Your task to perform on an android device: add a contact Image 0: 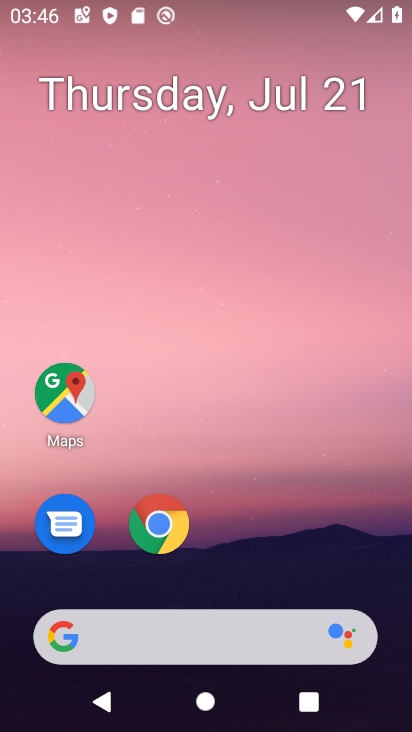
Step 0: drag from (281, 513) to (297, 19)
Your task to perform on an android device: add a contact Image 1: 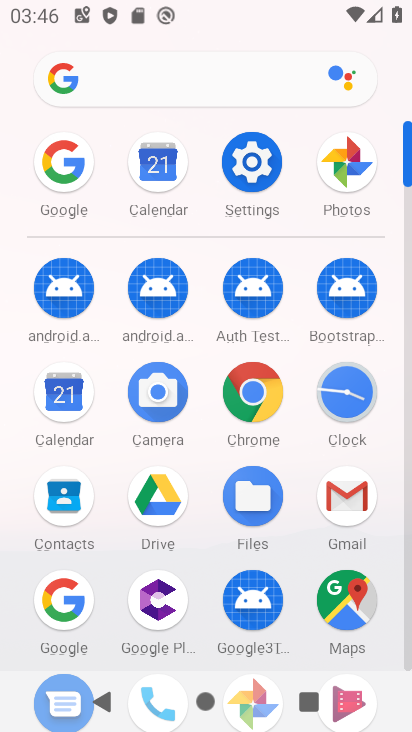
Step 1: click (70, 502)
Your task to perform on an android device: add a contact Image 2: 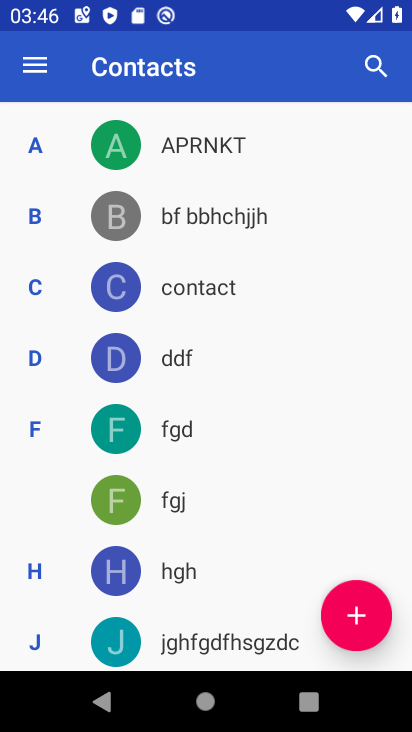
Step 2: click (353, 620)
Your task to perform on an android device: add a contact Image 3: 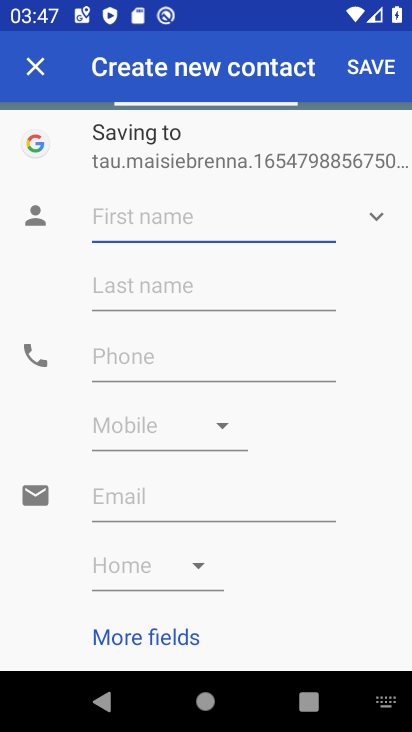
Step 3: type "Divyaprabha"
Your task to perform on an android device: add a contact Image 4: 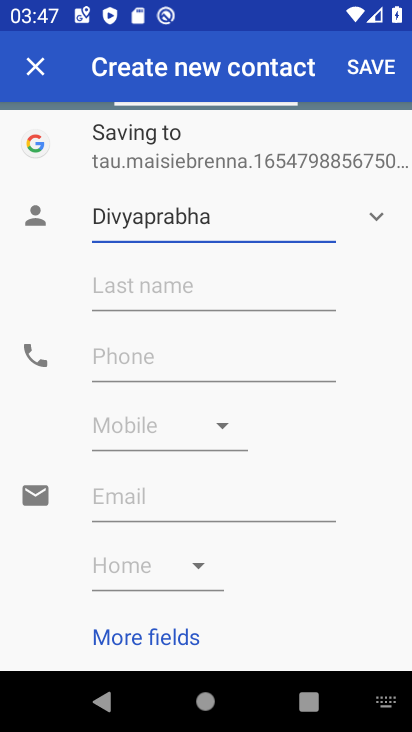
Step 4: click (214, 364)
Your task to perform on an android device: add a contact Image 5: 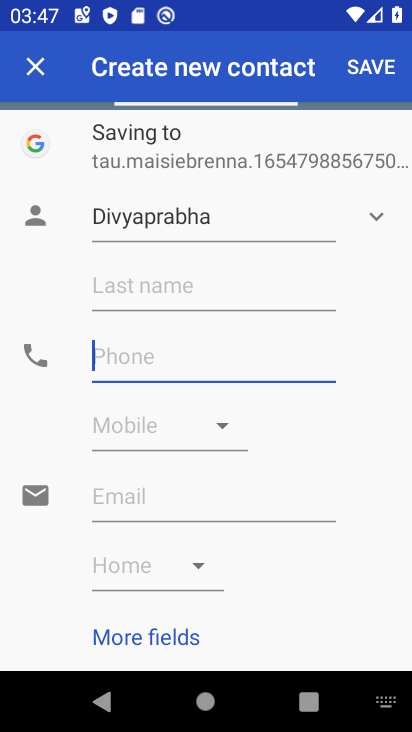
Step 5: type "9876543210"
Your task to perform on an android device: add a contact Image 6: 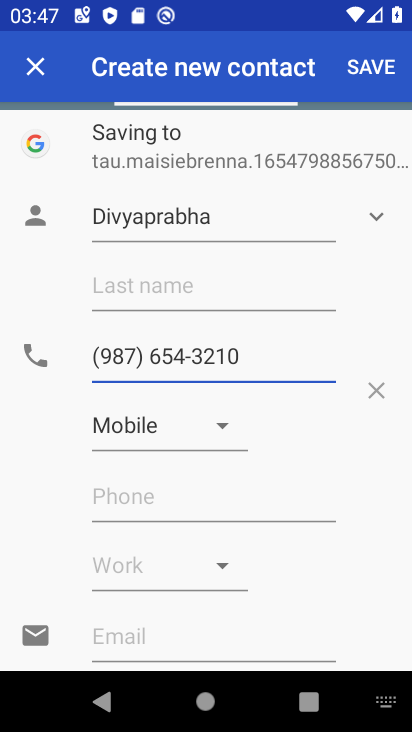
Step 6: click (378, 70)
Your task to perform on an android device: add a contact Image 7: 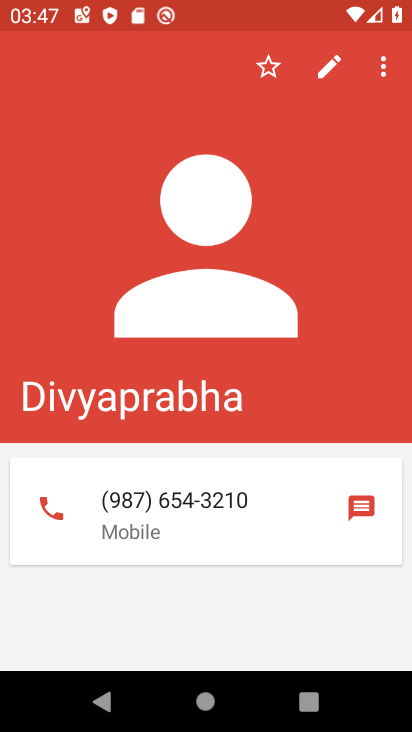
Step 7: task complete